Your task to perform on an android device: Open calendar and show me the fourth week of next month Image 0: 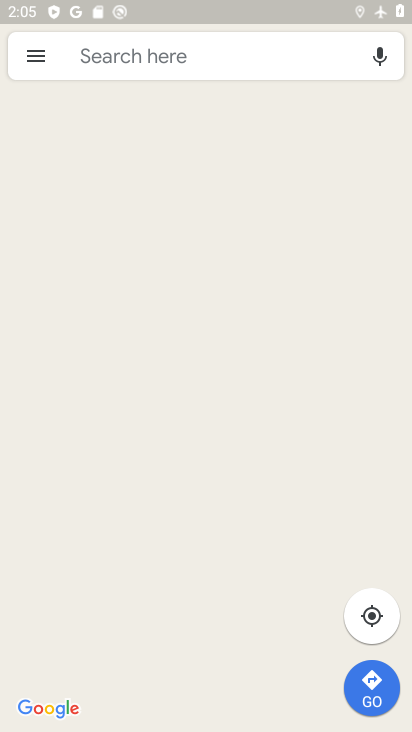
Step 0: press home button
Your task to perform on an android device: Open calendar and show me the fourth week of next month Image 1: 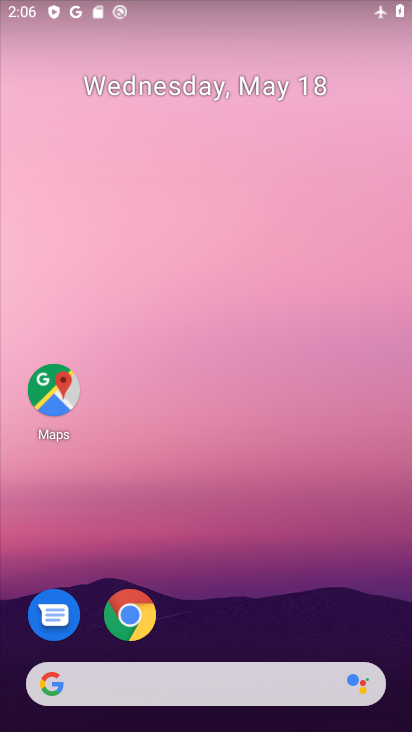
Step 1: drag from (179, 629) to (204, 316)
Your task to perform on an android device: Open calendar and show me the fourth week of next month Image 2: 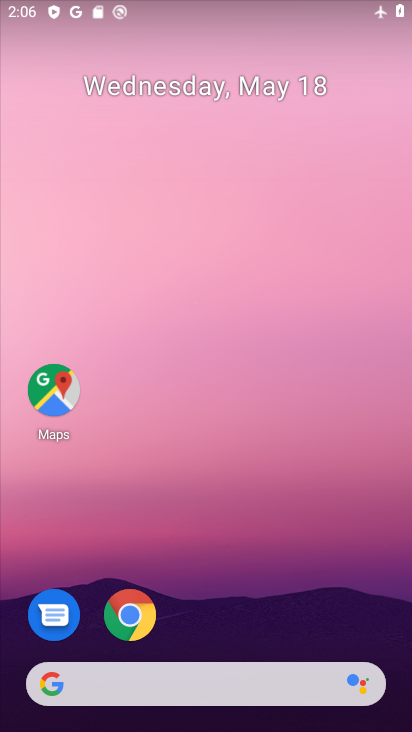
Step 2: drag from (202, 638) to (232, 303)
Your task to perform on an android device: Open calendar and show me the fourth week of next month Image 3: 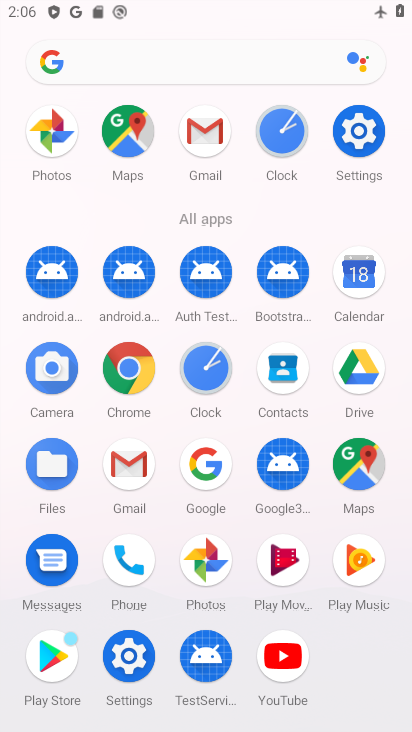
Step 3: click (359, 287)
Your task to perform on an android device: Open calendar and show me the fourth week of next month Image 4: 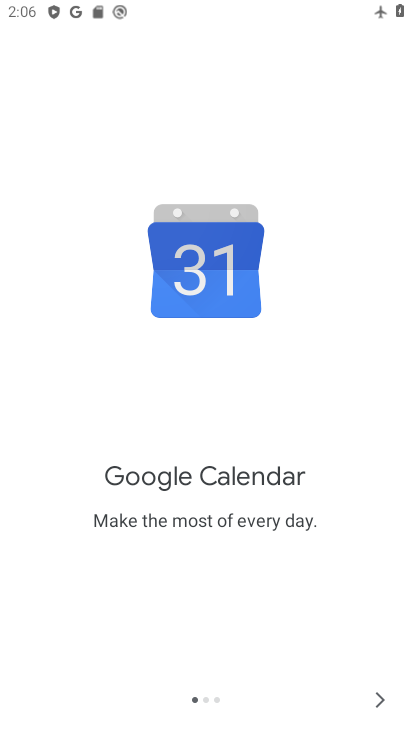
Step 4: click (379, 707)
Your task to perform on an android device: Open calendar and show me the fourth week of next month Image 5: 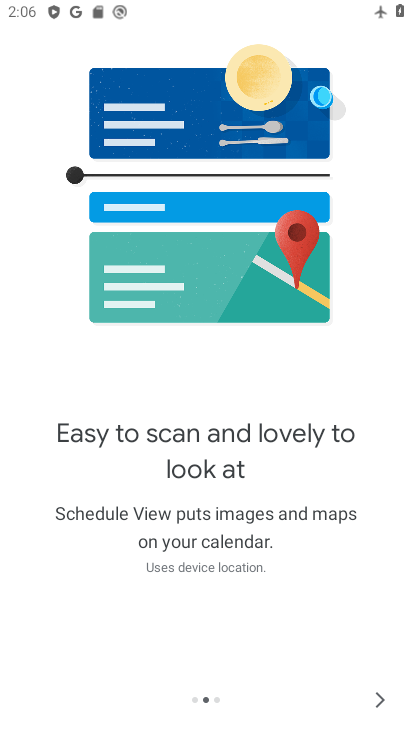
Step 5: click (374, 701)
Your task to perform on an android device: Open calendar and show me the fourth week of next month Image 6: 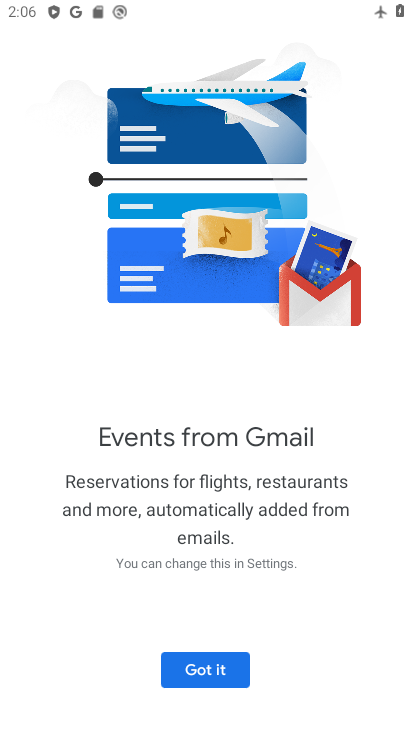
Step 6: click (228, 666)
Your task to perform on an android device: Open calendar and show me the fourth week of next month Image 7: 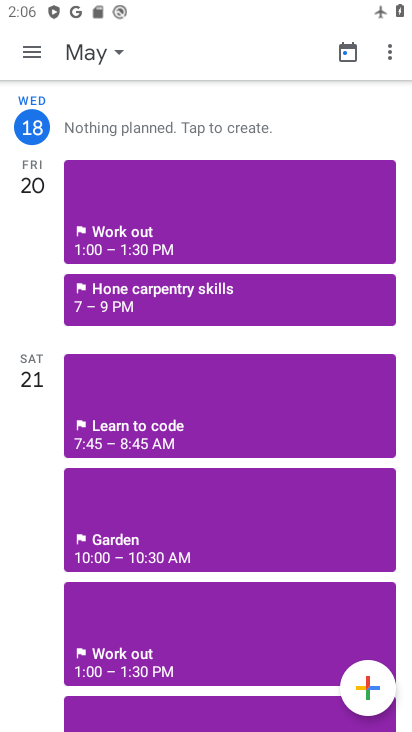
Step 7: click (103, 57)
Your task to perform on an android device: Open calendar and show me the fourth week of next month Image 8: 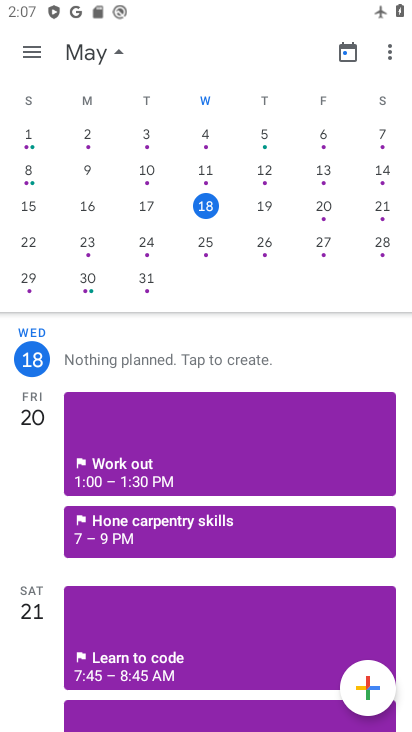
Step 8: drag from (397, 216) to (86, 183)
Your task to perform on an android device: Open calendar and show me the fourth week of next month Image 9: 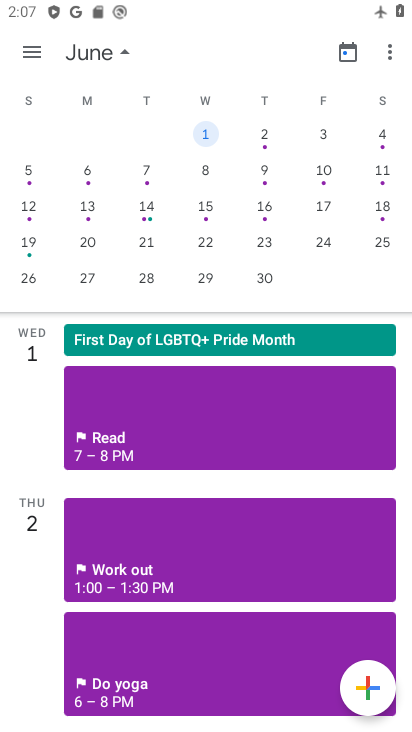
Step 9: click (215, 240)
Your task to perform on an android device: Open calendar and show me the fourth week of next month Image 10: 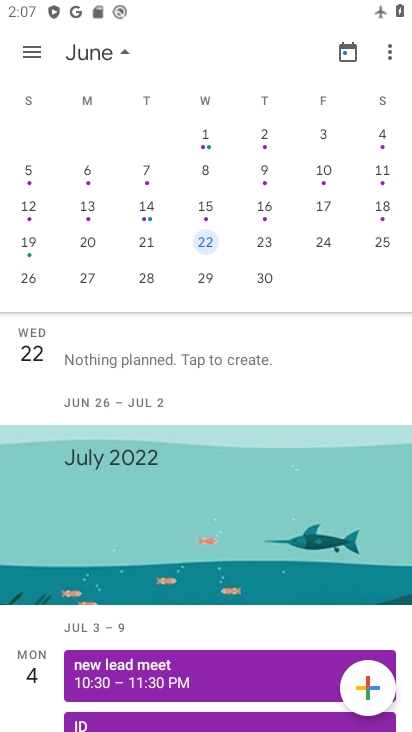
Step 10: click (265, 240)
Your task to perform on an android device: Open calendar and show me the fourth week of next month Image 11: 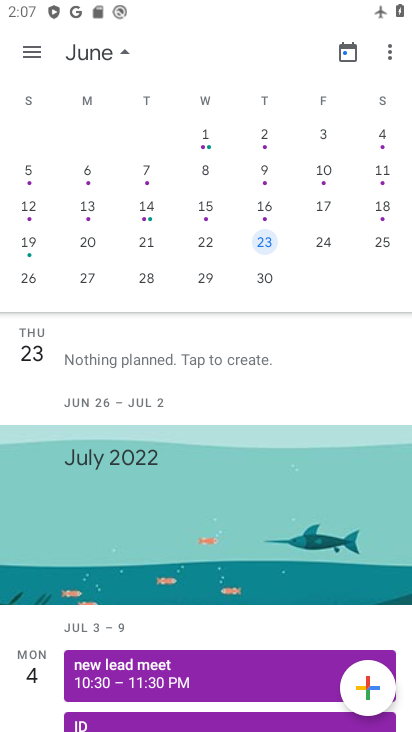
Step 11: click (29, 53)
Your task to perform on an android device: Open calendar and show me the fourth week of next month Image 12: 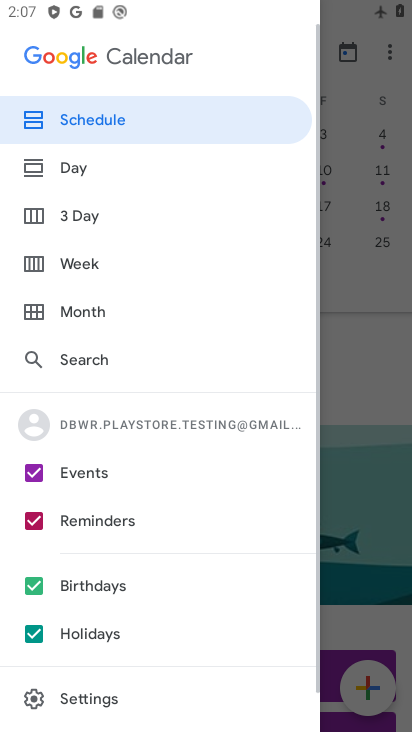
Step 12: click (104, 262)
Your task to perform on an android device: Open calendar and show me the fourth week of next month Image 13: 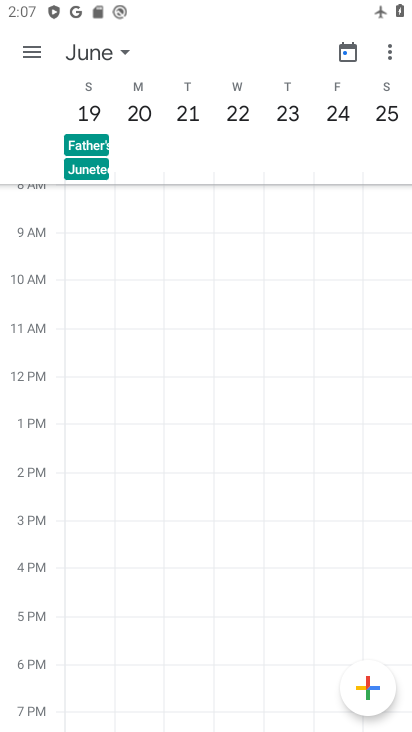
Step 13: task complete